Your task to perform on an android device: Go to display settings Image 0: 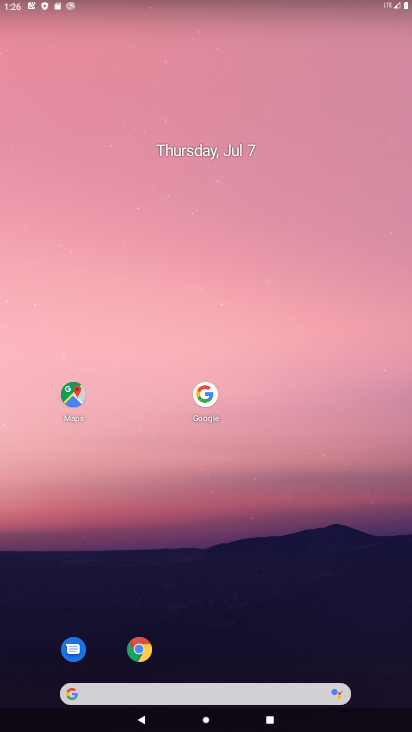
Step 0: press home button
Your task to perform on an android device: Go to display settings Image 1: 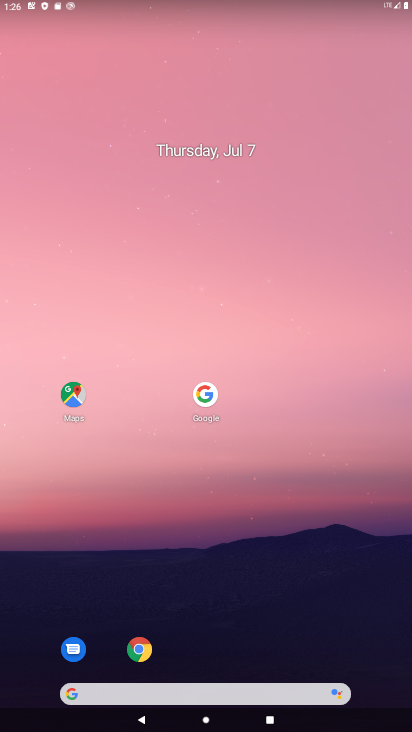
Step 1: drag from (346, 582) to (368, 54)
Your task to perform on an android device: Go to display settings Image 2: 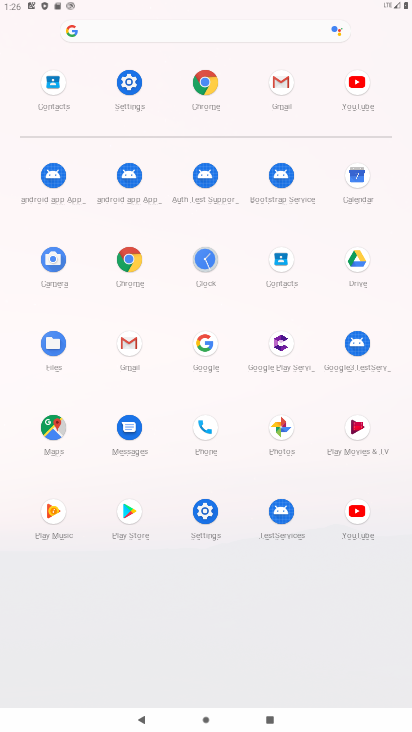
Step 2: click (125, 91)
Your task to perform on an android device: Go to display settings Image 3: 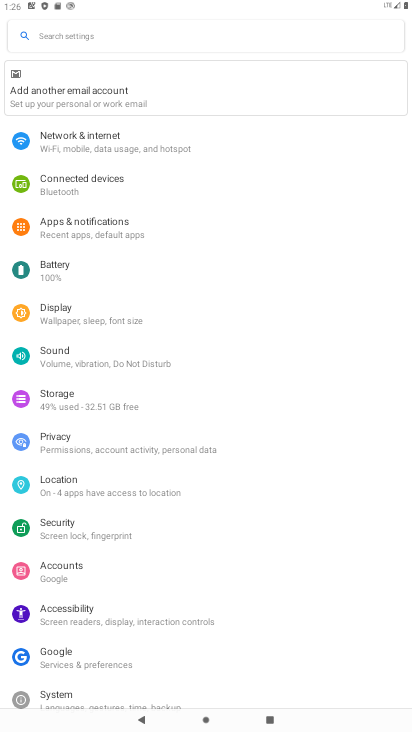
Step 3: click (109, 309)
Your task to perform on an android device: Go to display settings Image 4: 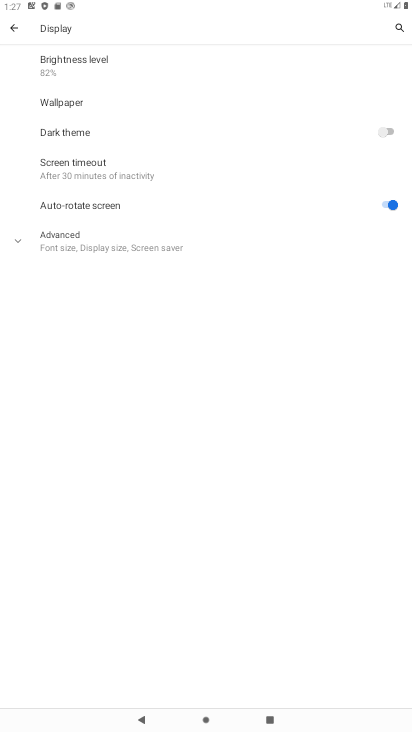
Step 4: task complete